Your task to perform on an android device: toggle sleep mode Image 0: 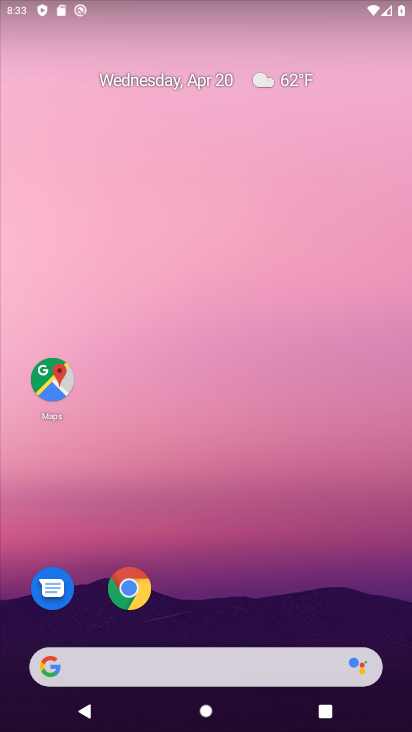
Step 0: drag from (371, 587) to (202, 0)
Your task to perform on an android device: toggle sleep mode Image 1: 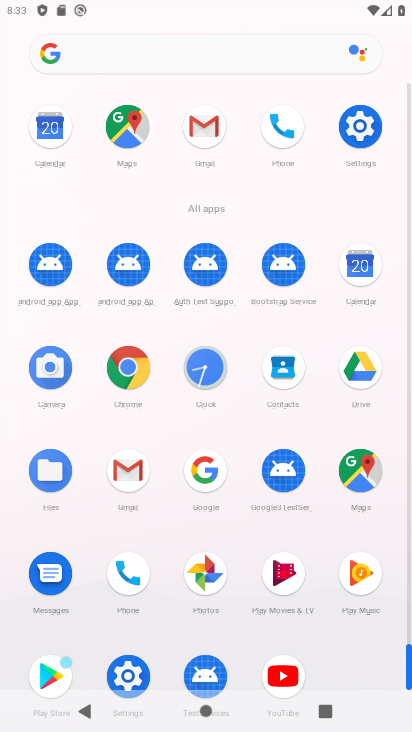
Step 1: drag from (6, 523) to (1, 302)
Your task to perform on an android device: toggle sleep mode Image 2: 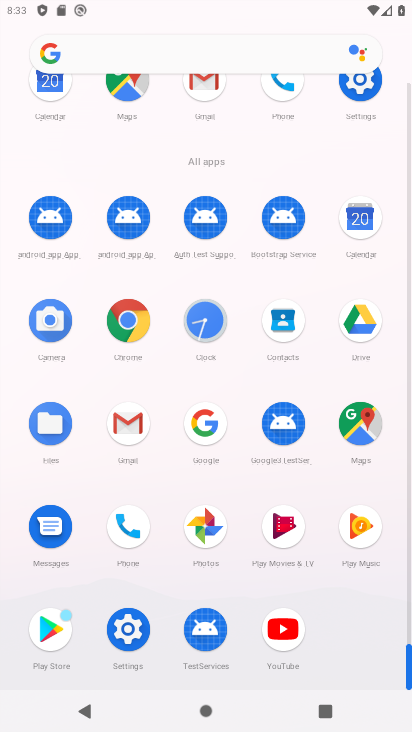
Step 2: click (127, 627)
Your task to perform on an android device: toggle sleep mode Image 3: 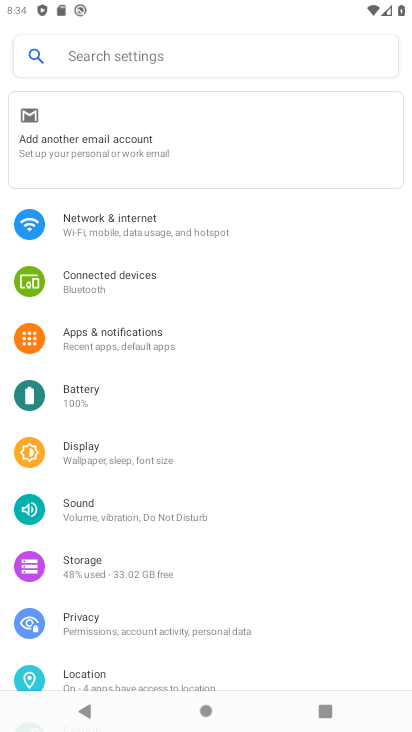
Step 3: click (158, 223)
Your task to perform on an android device: toggle sleep mode Image 4: 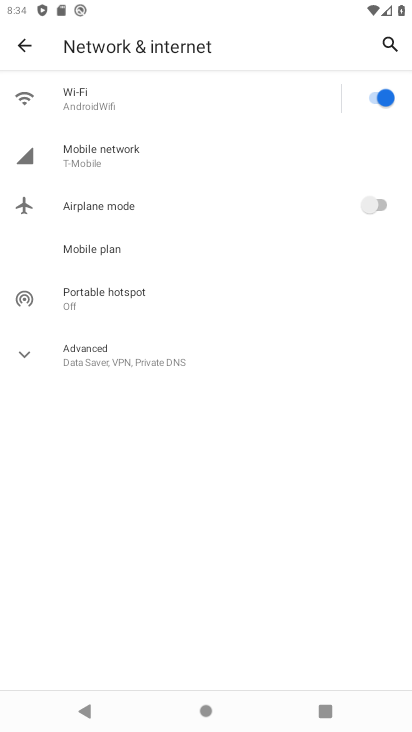
Step 4: click (22, 348)
Your task to perform on an android device: toggle sleep mode Image 5: 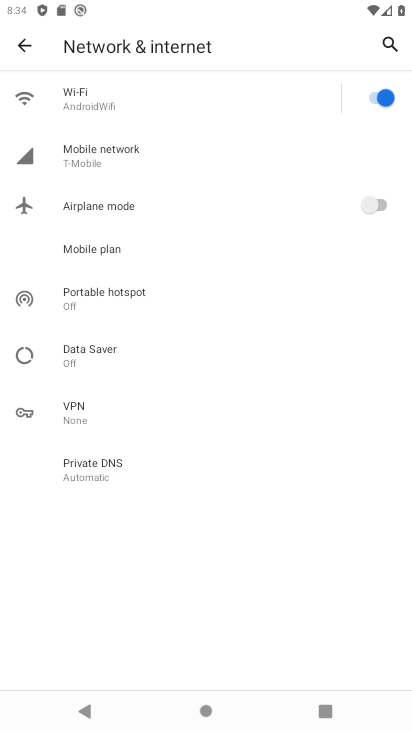
Step 5: click (25, 48)
Your task to perform on an android device: toggle sleep mode Image 6: 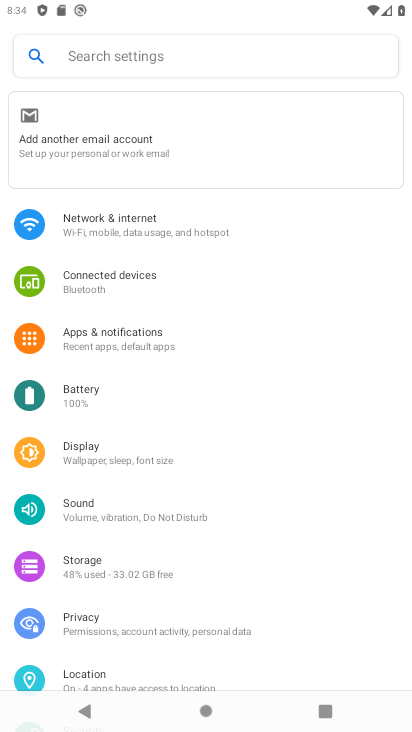
Step 6: drag from (293, 502) to (263, 216)
Your task to perform on an android device: toggle sleep mode Image 7: 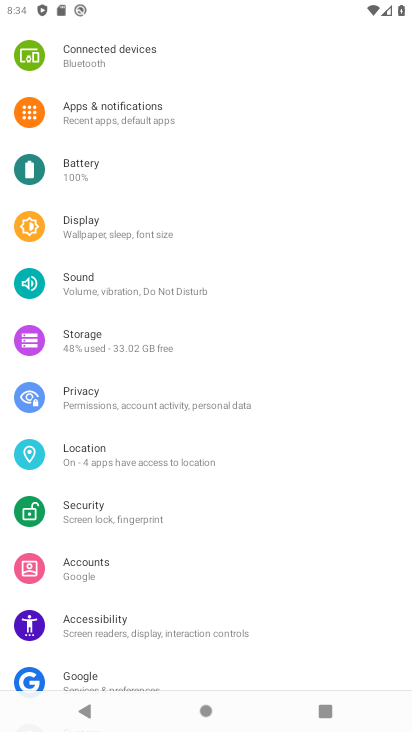
Step 7: drag from (245, 127) to (245, 326)
Your task to perform on an android device: toggle sleep mode Image 8: 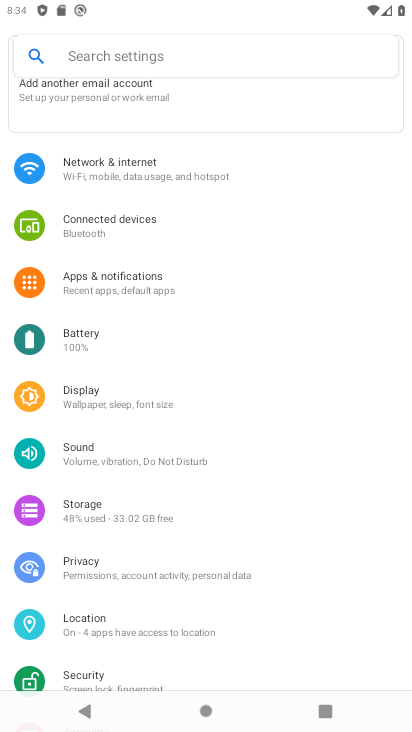
Step 8: click (134, 392)
Your task to perform on an android device: toggle sleep mode Image 9: 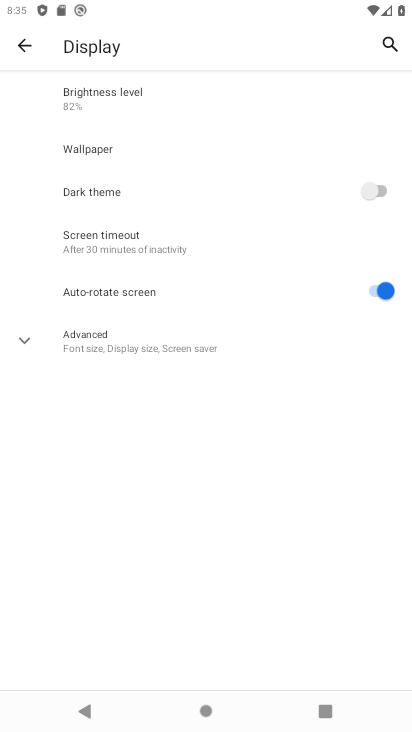
Step 9: click (38, 330)
Your task to perform on an android device: toggle sleep mode Image 10: 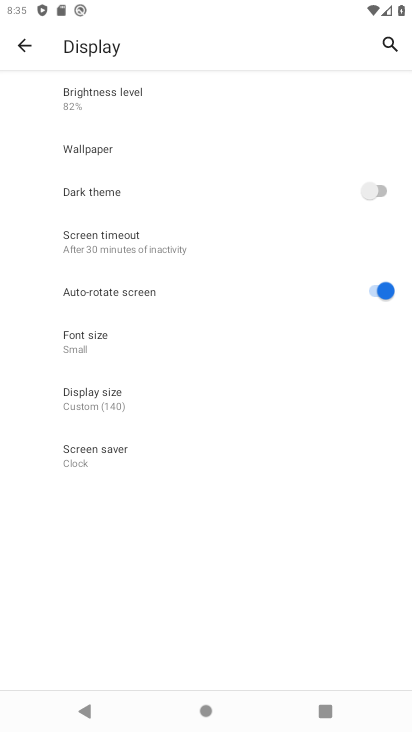
Step 10: task complete